Your task to perform on an android device: change notification settings in the gmail app Image 0: 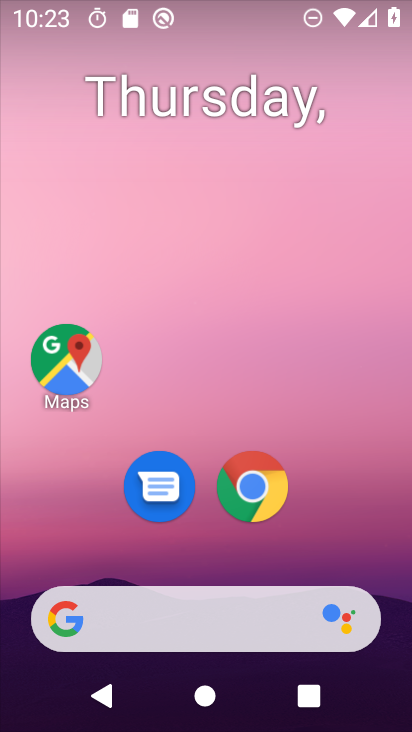
Step 0: drag from (203, 575) to (292, 36)
Your task to perform on an android device: change notification settings in the gmail app Image 1: 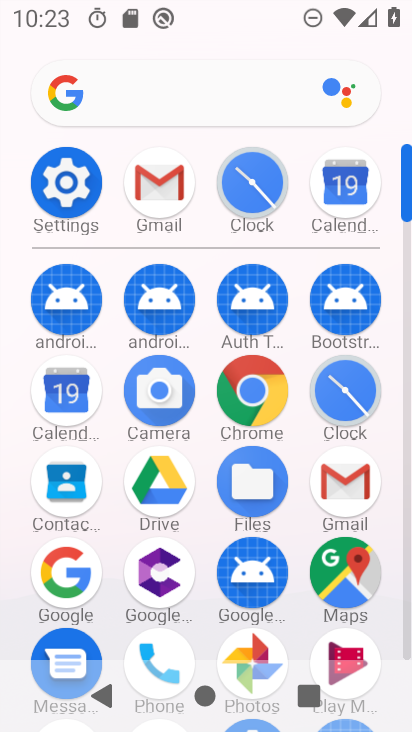
Step 1: click (166, 183)
Your task to perform on an android device: change notification settings in the gmail app Image 2: 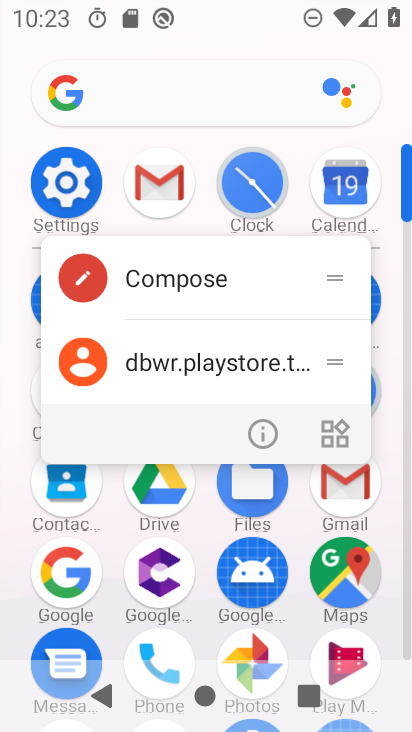
Step 2: click (276, 434)
Your task to perform on an android device: change notification settings in the gmail app Image 3: 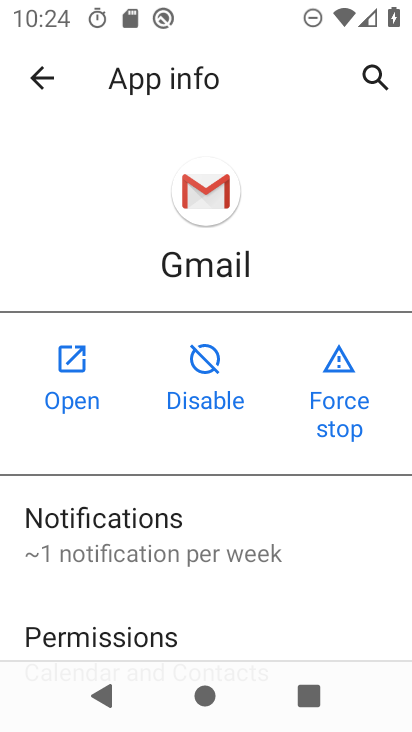
Step 3: click (170, 538)
Your task to perform on an android device: change notification settings in the gmail app Image 4: 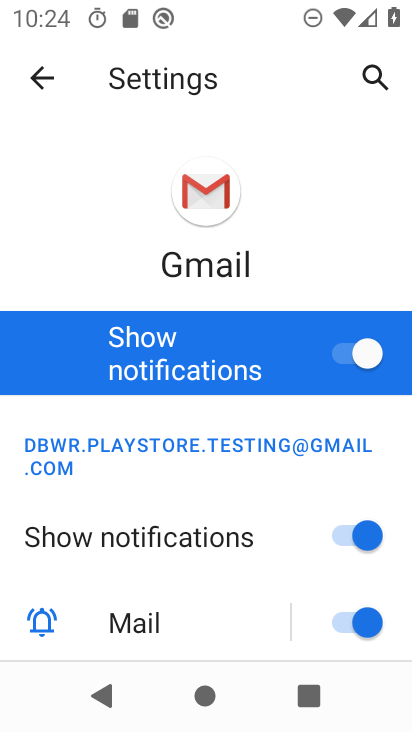
Step 4: drag from (183, 602) to (260, 260)
Your task to perform on an android device: change notification settings in the gmail app Image 5: 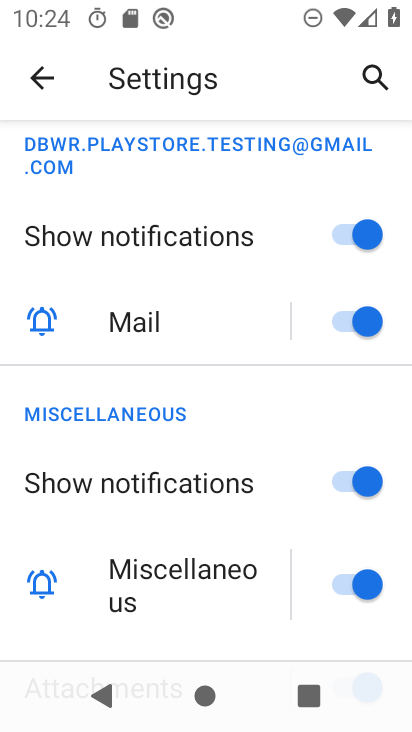
Step 5: click (355, 232)
Your task to perform on an android device: change notification settings in the gmail app Image 6: 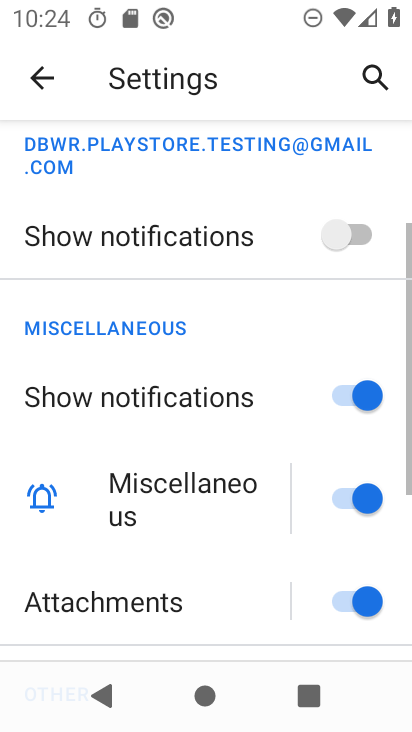
Step 6: task complete